Your task to perform on an android device: all mails in gmail Image 0: 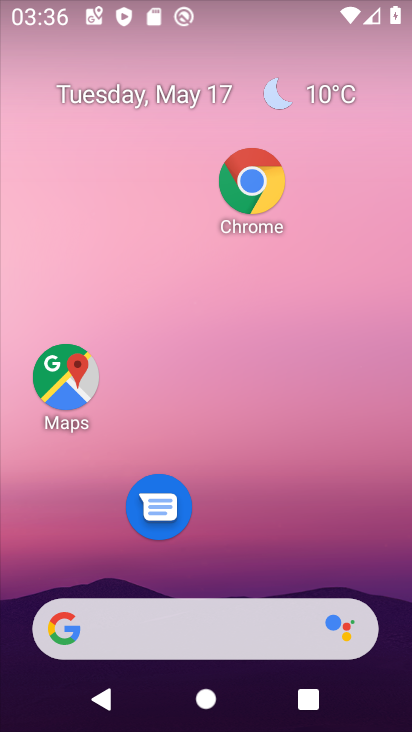
Step 0: drag from (182, 576) to (164, 208)
Your task to perform on an android device: all mails in gmail Image 1: 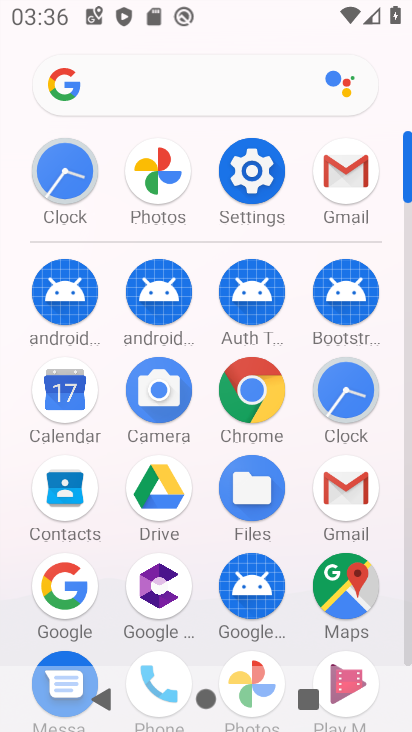
Step 1: click (332, 180)
Your task to perform on an android device: all mails in gmail Image 2: 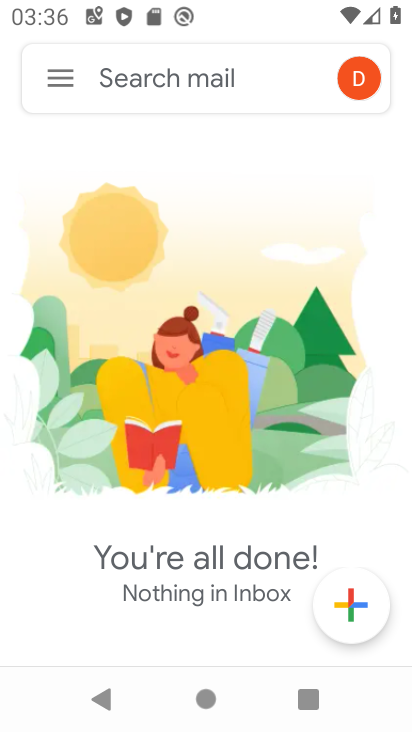
Step 2: click (54, 90)
Your task to perform on an android device: all mails in gmail Image 3: 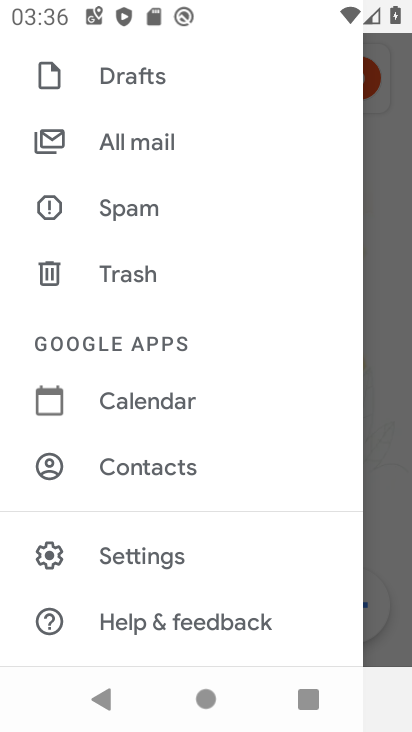
Step 3: click (173, 156)
Your task to perform on an android device: all mails in gmail Image 4: 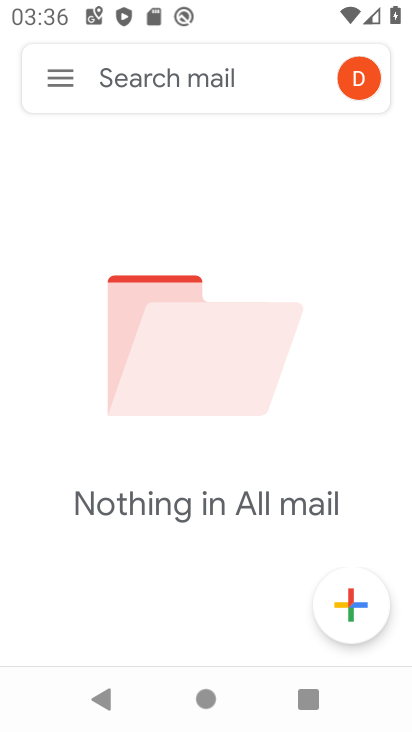
Step 4: task complete